Your task to perform on an android device: Open internet settings Image 0: 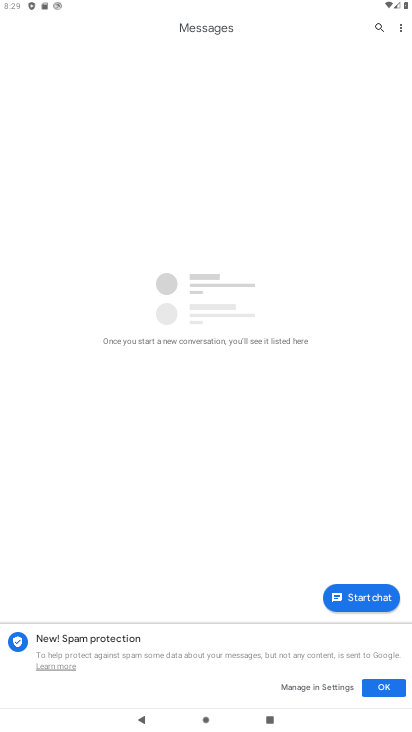
Step 0: press home button
Your task to perform on an android device: Open internet settings Image 1: 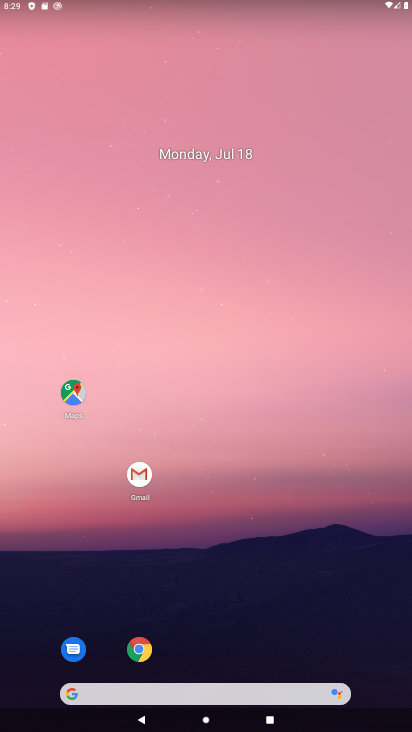
Step 1: drag from (243, 561) to (236, 159)
Your task to perform on an android device: Open internet settings Image 2: 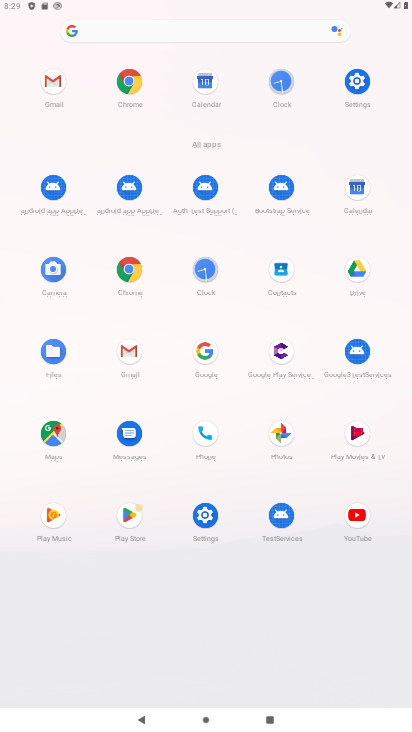
Step 2: click (354, 81)
Your task to perform on an android device: Open internet settings Image 3: 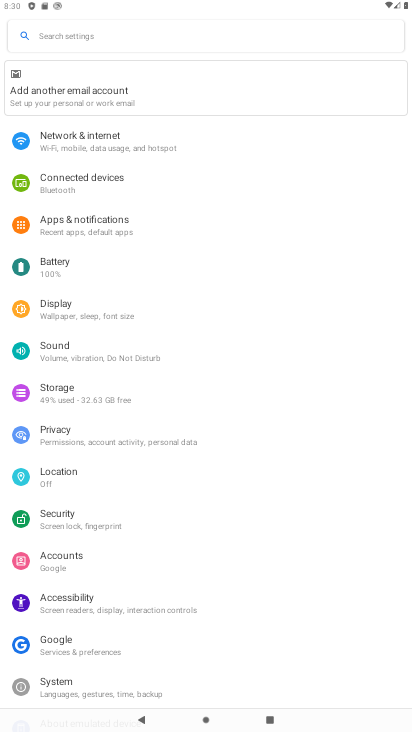
Step 3: click (91, 140)
Your task to perform on an android device: Open internet settings Image 4: 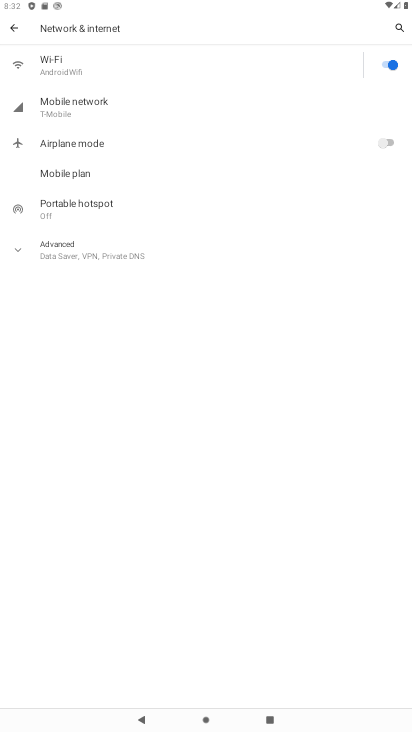
Step 4: task complete